Your task to perform on an android device: Open Chrome and go to settings Image 0: 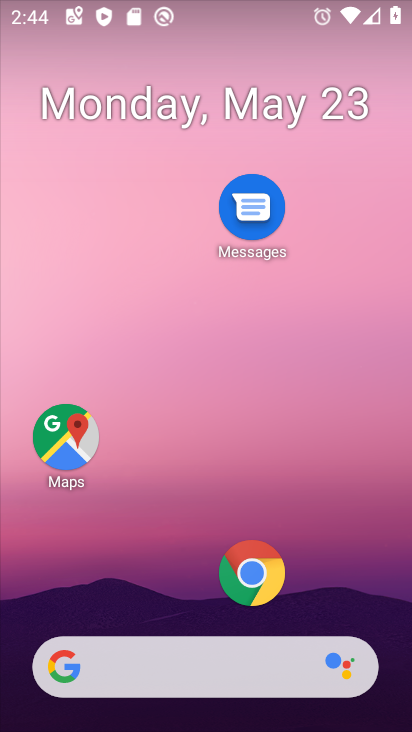
Step 0: drag from (321, 653) to (380, 174)
Your task to perform on an android device: Open Chrome and go to settings Image 1: 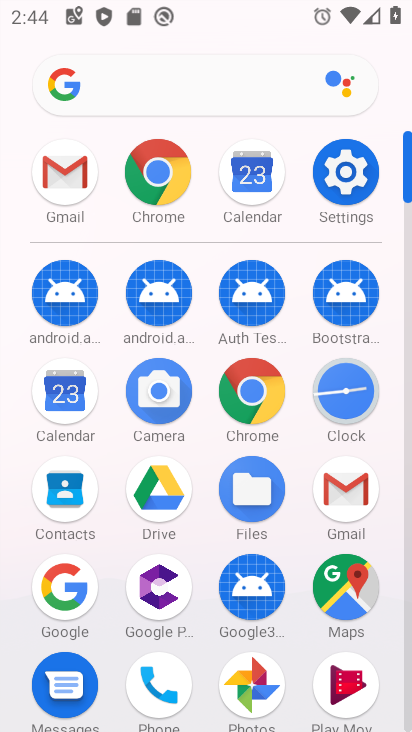
Step 1: click (243, 404)
Your task to perform on an android device: Open Chrome and go to settings Image 2: 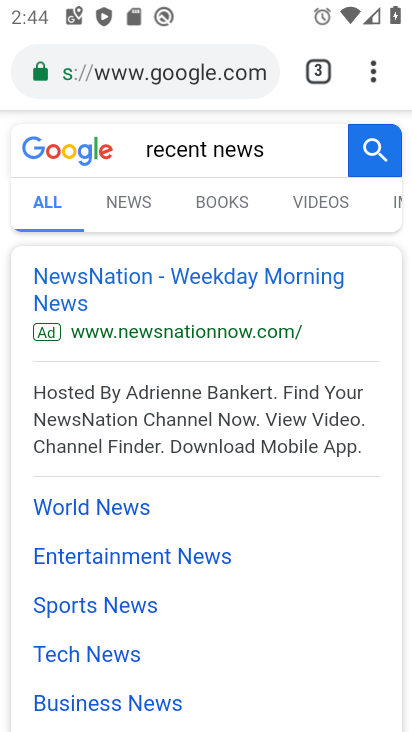
Step 2: task complete